Your task to perform on an android device: turn on location history Image 0: 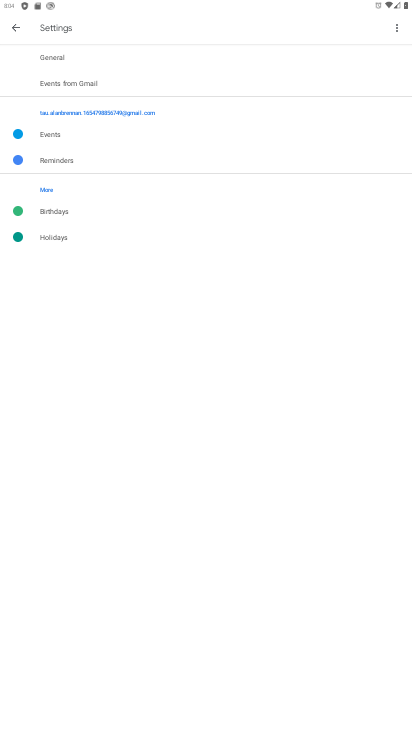
Step 0: drag from (397, 29) to (315, 298)
Your task to perform on an android device: turn on location history Image 1: 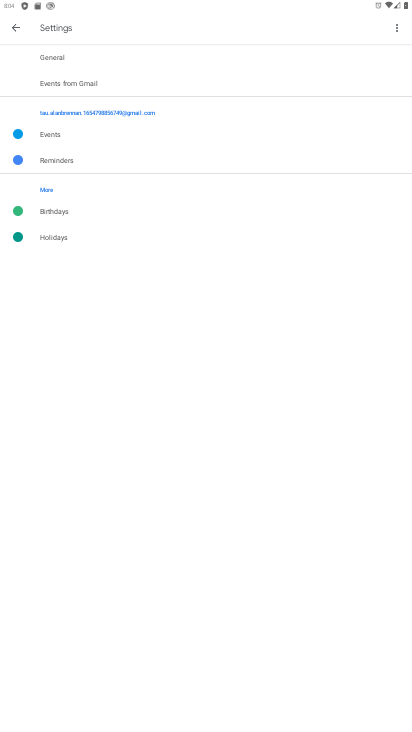
Step 1: click (14, 23)
Your task to perform on an android device: turn on location history Image 2: 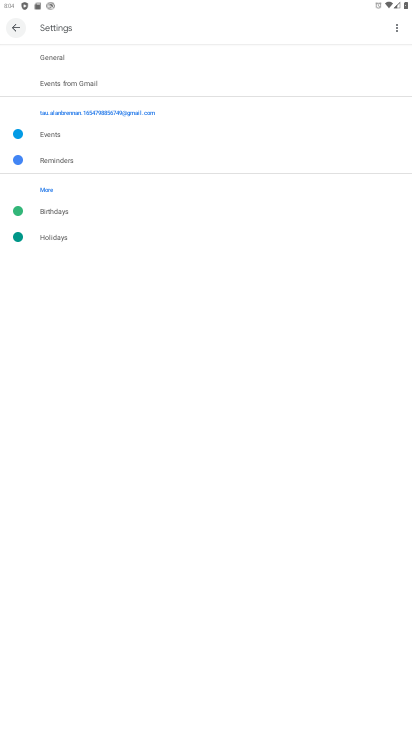
Step 2: click (15, 27)
Your task to perform on an android device: turn on location history Image 3: 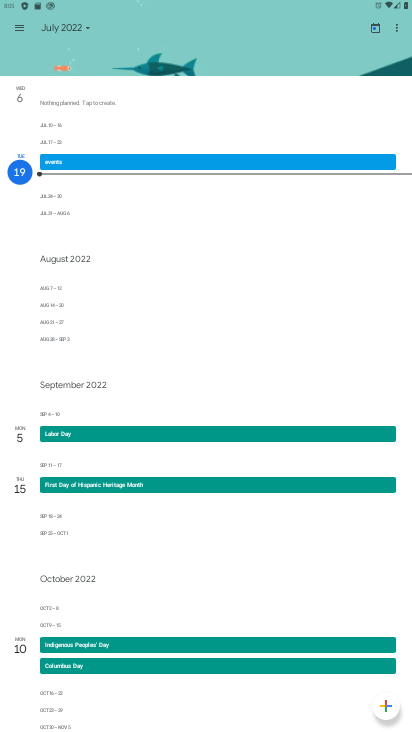
Step 3: press back button
Your task to perform on an android device: turn on location history Image 4: 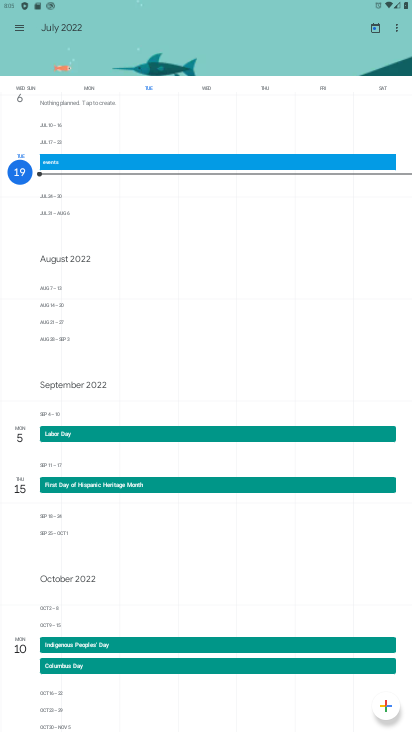
Step 4: press back button
Your task to perform on an android device: turn on location history Image 5: 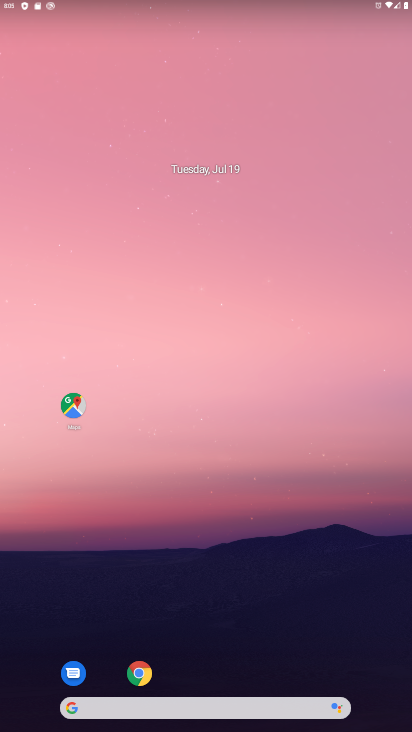
Step 5: drag from (279, 652) to (227, 307)
Your task to perform on an android device: turn on location history Image 6: 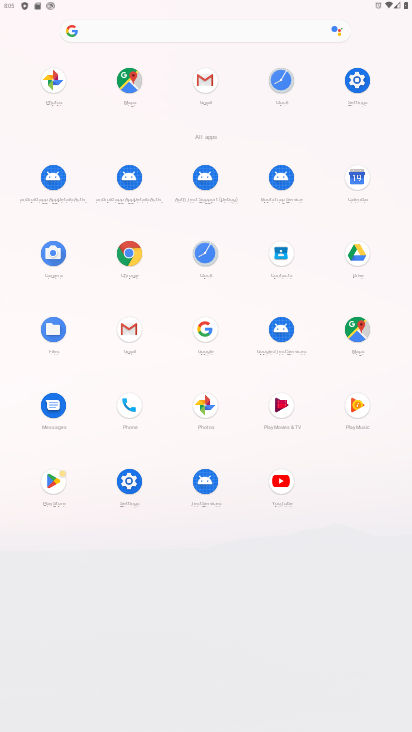
Step 6: click (353, 82)
Your task to perform on an android device: turn on location history Image 7: 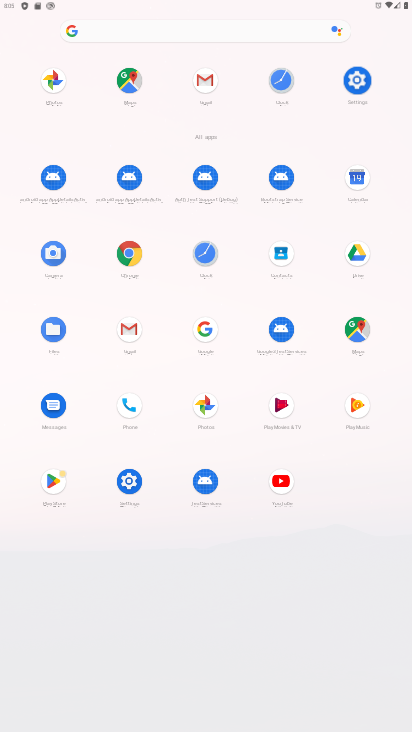
Step 7: click (353, 82)
Your task to perform on an android device: turn on location history Image 8: 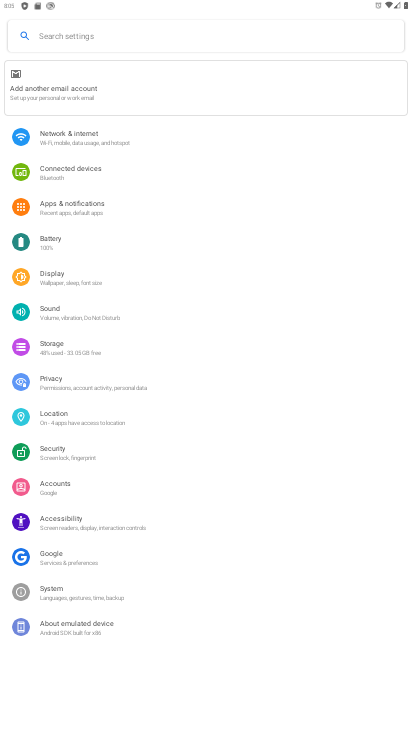
Step 8: click (53, 413)
Your task to perform on an android device: turn on location history Image 9: 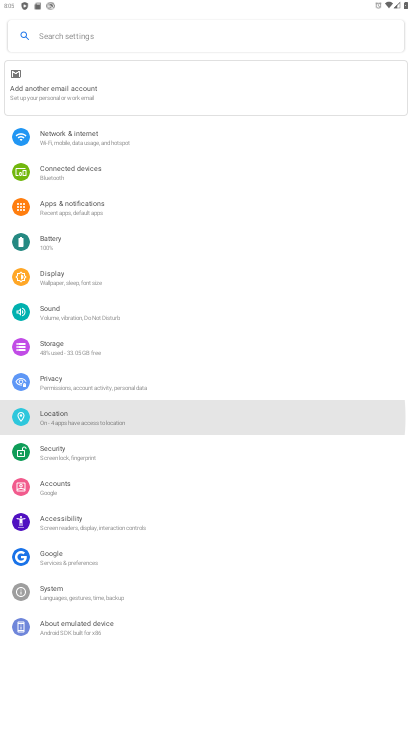
Step 9: click (53, 415)
Your task to perform on an android device: turn on location history Image 10: 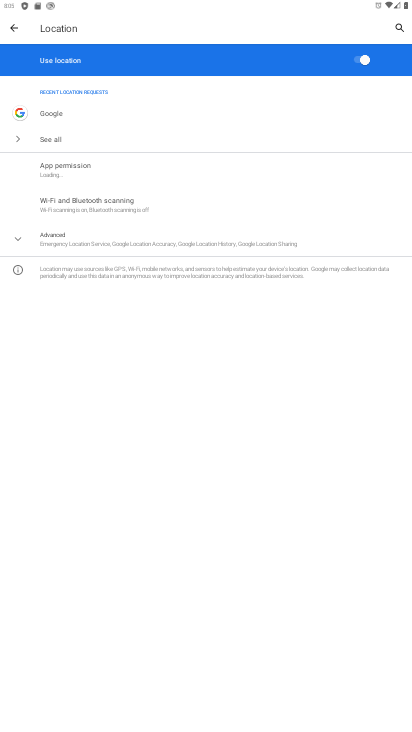
Step 10: click (59, 234)
Your task to perform on an android device: turn on location history Image 11: 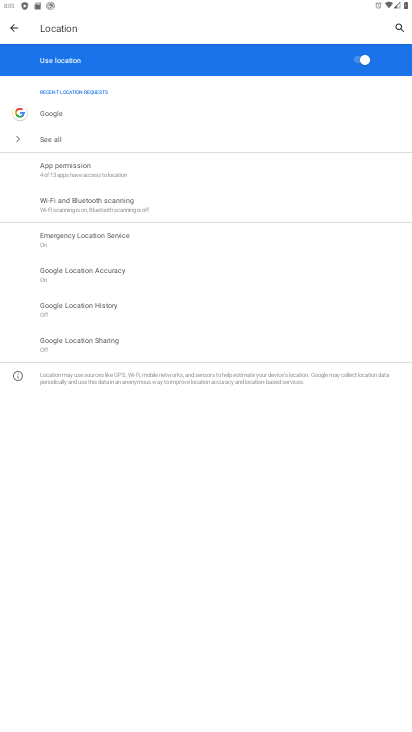
Step 11: click (87, 303)
Your task to perform on an android device: turn on location history Image 12: 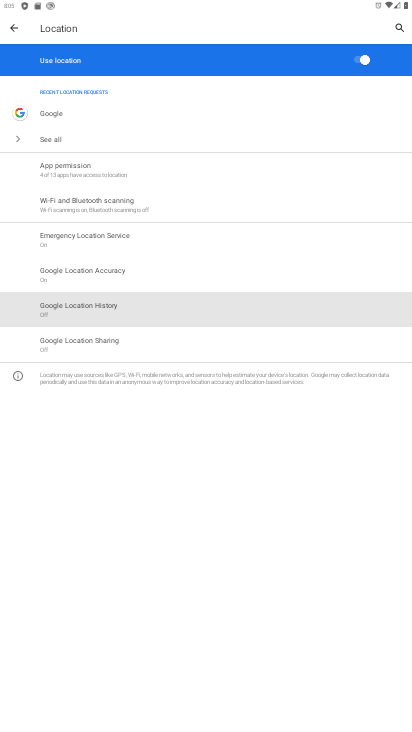
Step 12: click (86, 302)
Your task to perform on an android device: turn on location history Image 13: 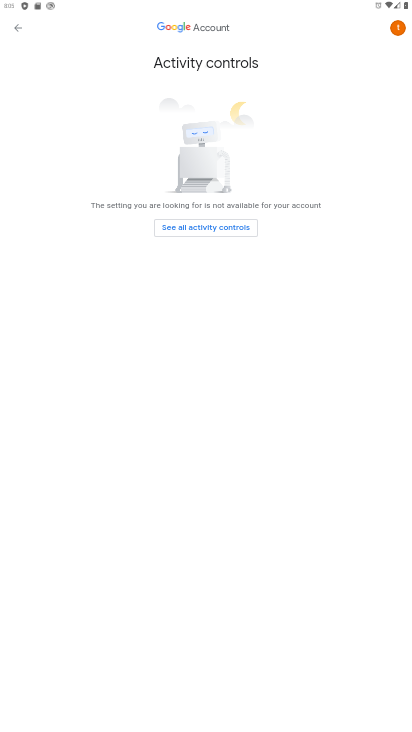
Step 13: click (211, 223)
Your task to perform on an android device: turn on location history Image 14: 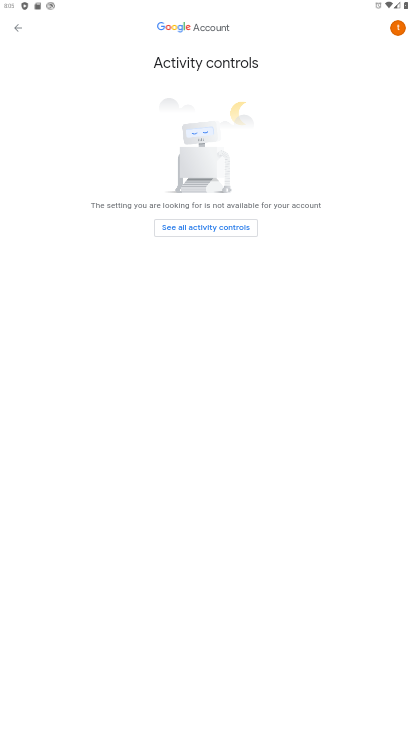
Step 14: click (211, 223)
Your task to perform on an android device: turn on location history Image 15: 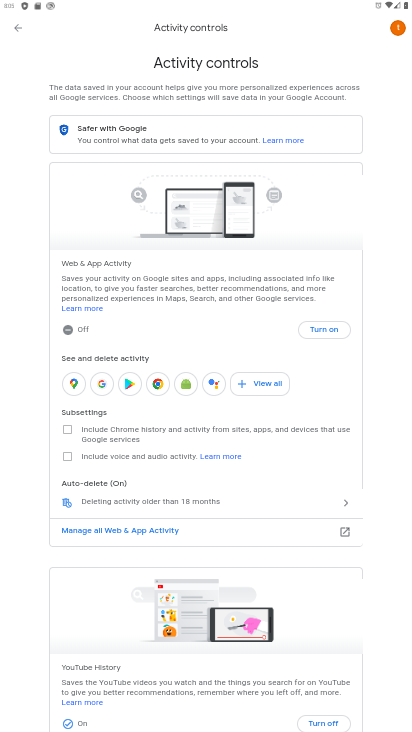
Step 15: click (333, 328)
Your task to perform on an android device: turn on location history Image 16: 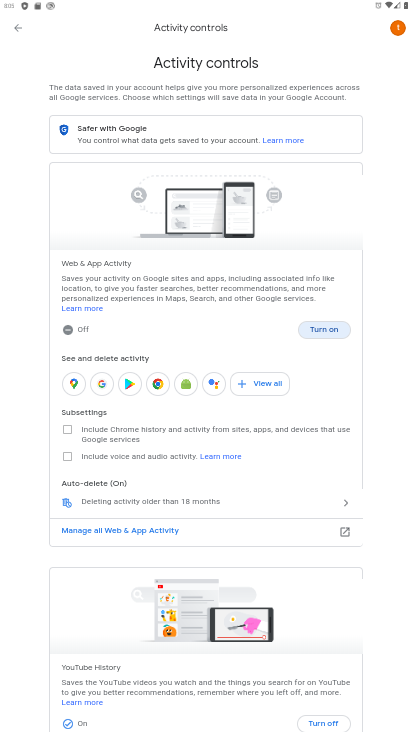
Step 16: click (333, 328)
Your task to perform on an android device: turn on location history Image 17: 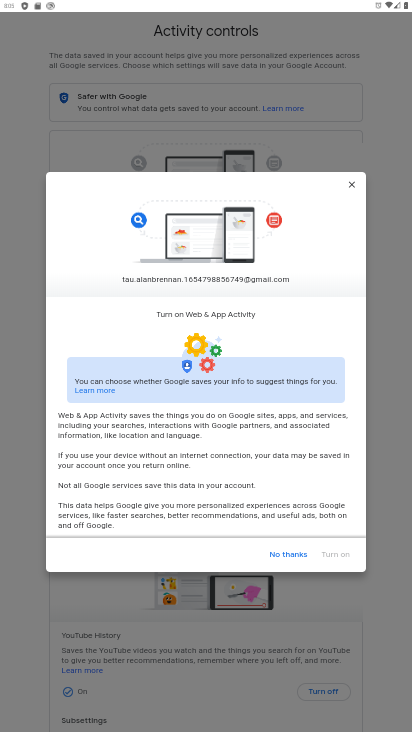
Step 17: click (339, 554)
Your task to perform on an android device: turn on location history Image 18: 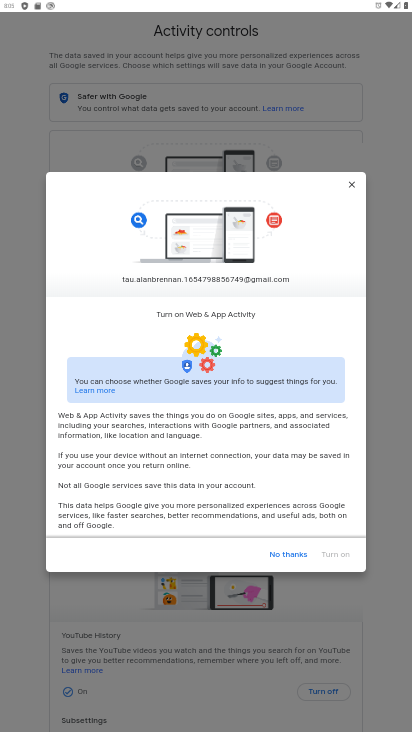
Step 18: click (339, 554)
Your task to perform on an android device: turn on location history Image 19: 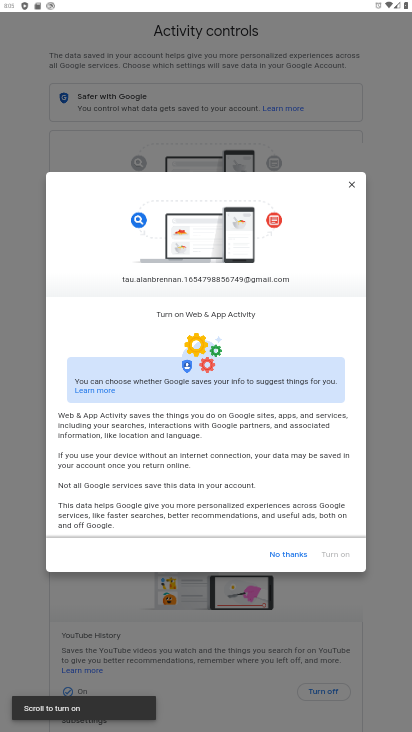
Step 19: click (326, 546)
Your task to perform on an android device: turn on location history Image 20: 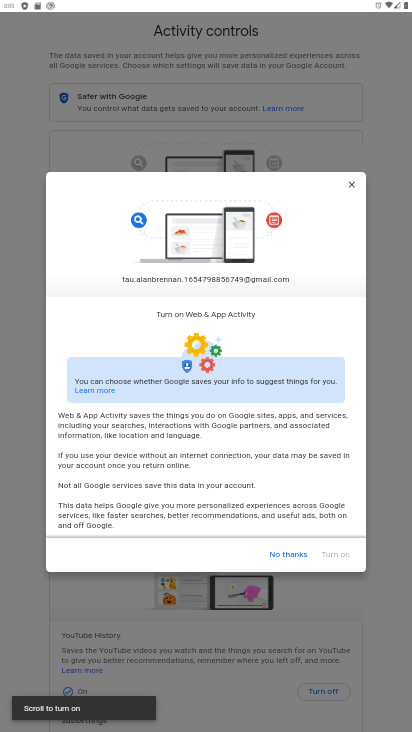
Step 20: click (332, 549)
Your task to perform on an android device: turn on location history Image 21: 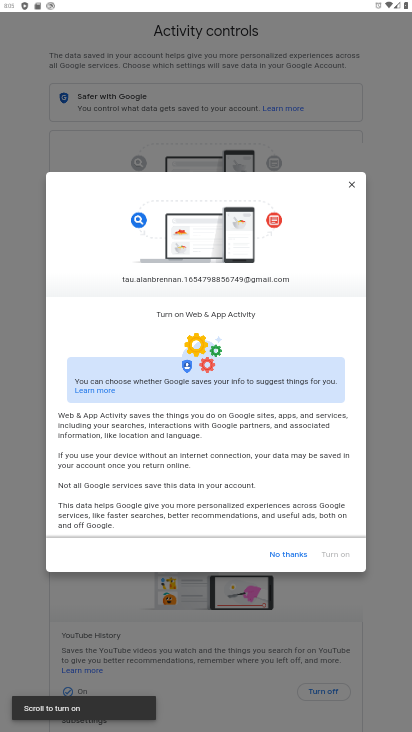
Step 21: click (334, 558)
Your task to perform on an android device: turn on location history Image 22: 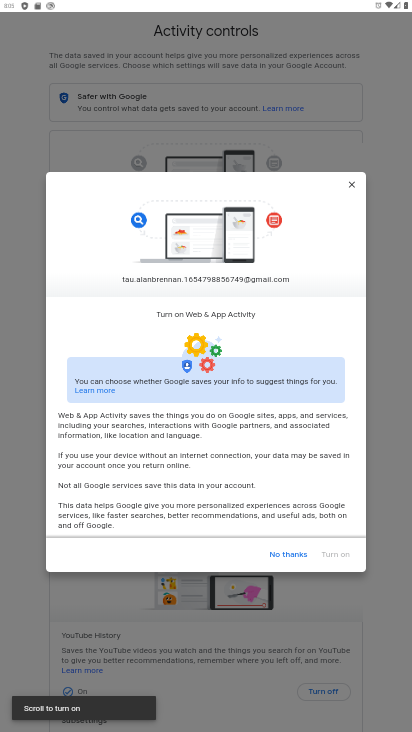
Step 22: click (334, 557)
Your task to perform on an android device: turn on location history Image 23: 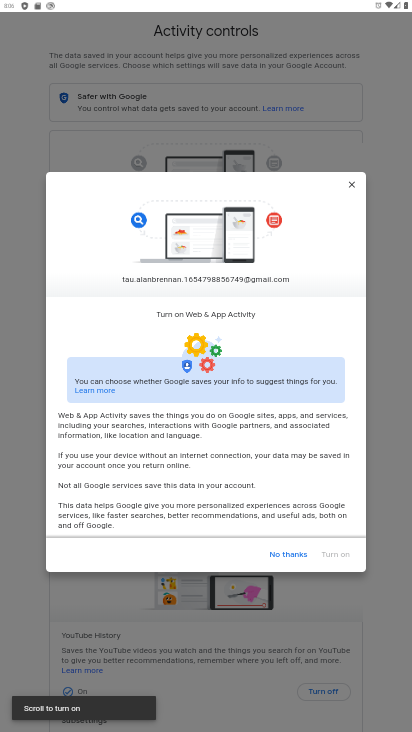
Step 23: press back button
Your task to perform on an android device: turn on location history Image 24: 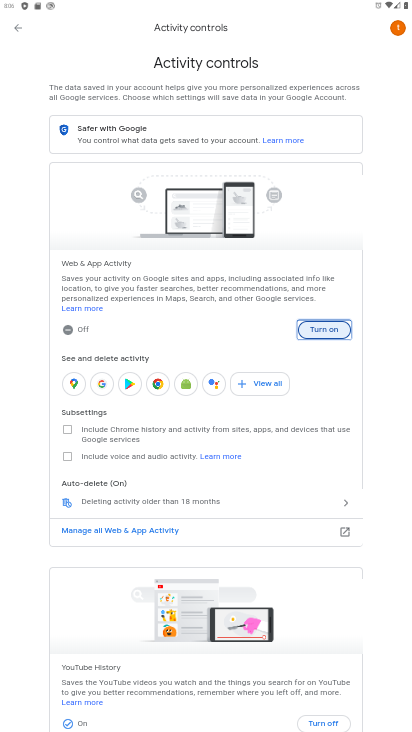
Step 24: press home button
Your task to perform on an android device: turn on location history Image 25: 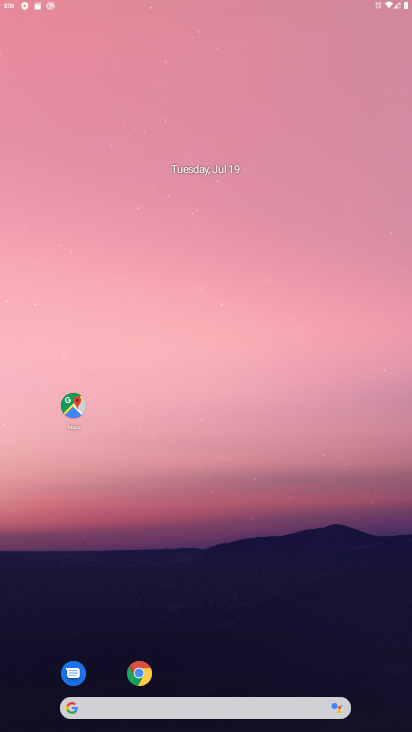
Step 25: press back button
Your task to perform on an android device: turn on location history Image 26: 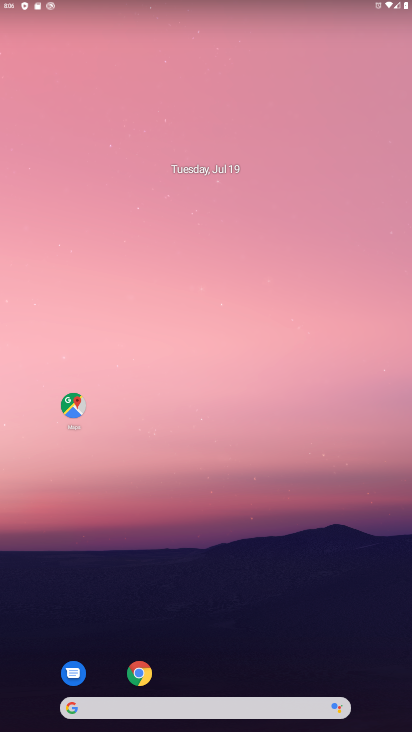
Step 26: drag from (236, 698) to (141, 342)
Your task to perform on an android device: turn on location history Image 27: 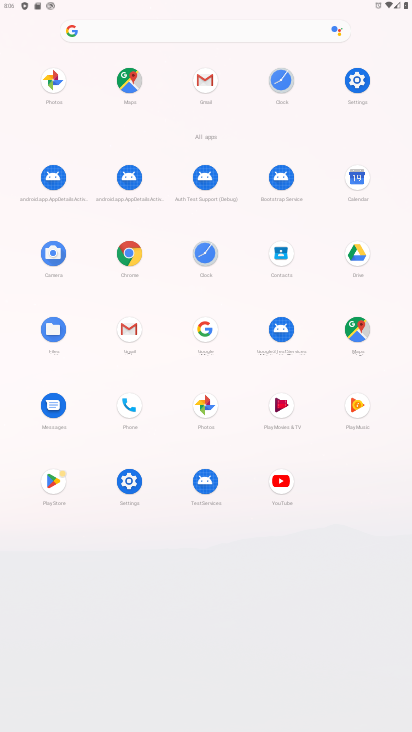
Step 27: click (368, 79)
Your task to perform on an android device: turn on location history Image 28: 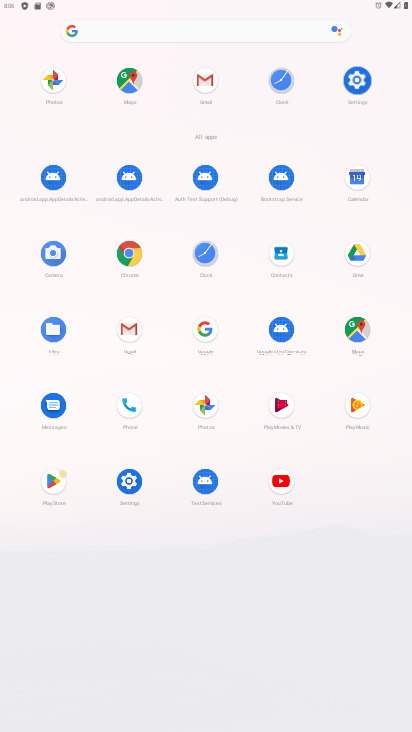
Step 28: click (368, 79)
Your task to perform on an android device: turn on location history Image 29: 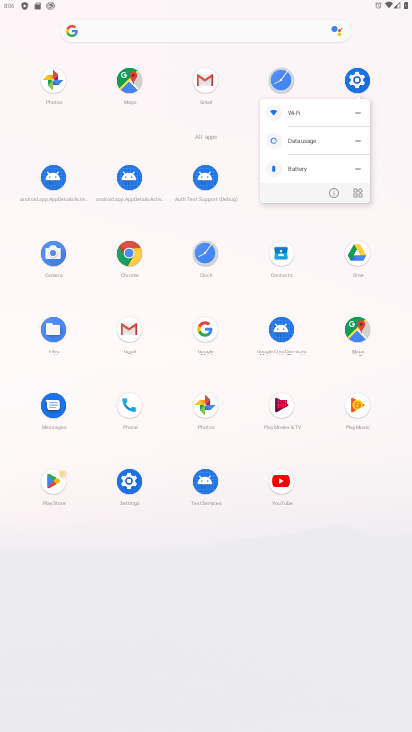
Step 29: click (365, 79)
Your task to perform on an android device: turn on location history Image 30: 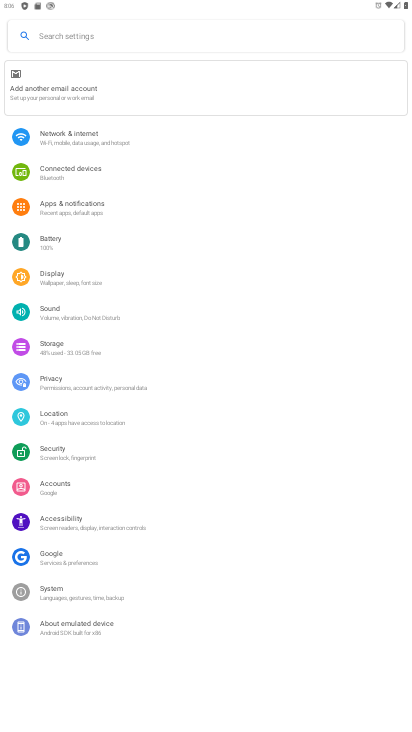
Step 30: click (60, 415)
Your task to perform on an android device: turn on location history Image 31: 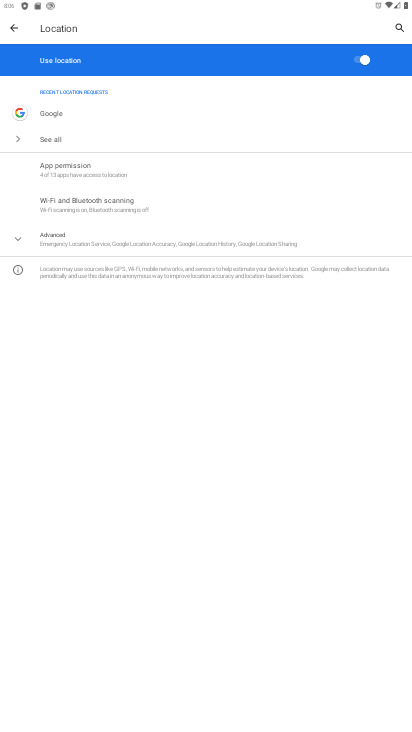
Step 31: click (57, 224)
Your task to perform on an android device: turn on location history Image 32: 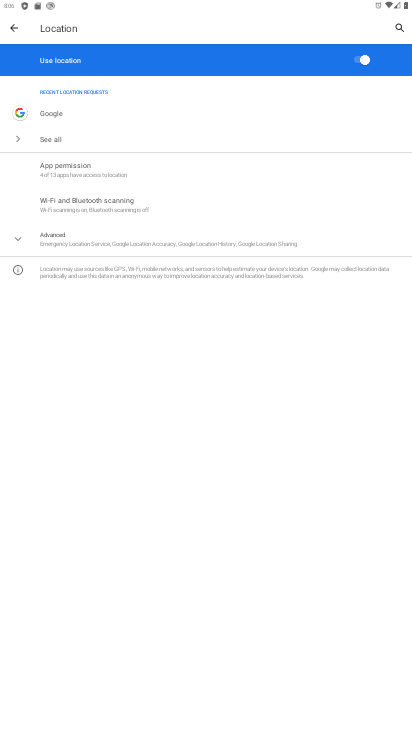
Step 32: click (60, 229)
Your task to perform on an android device: turn on location history Image 33: 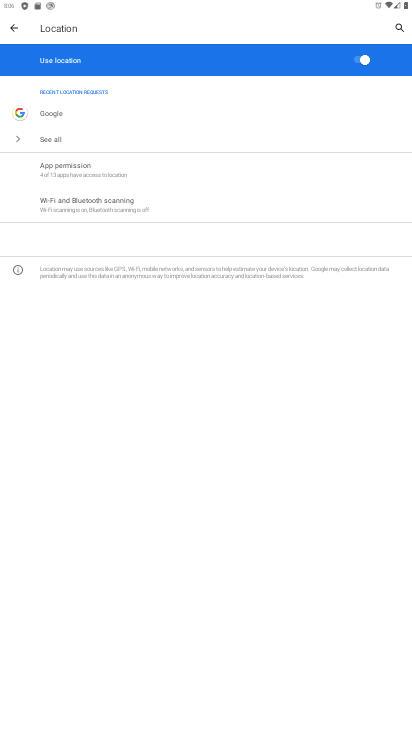
Step 33: click (61, 229)
Your task to perform on an android device: turn on location history Image 34: 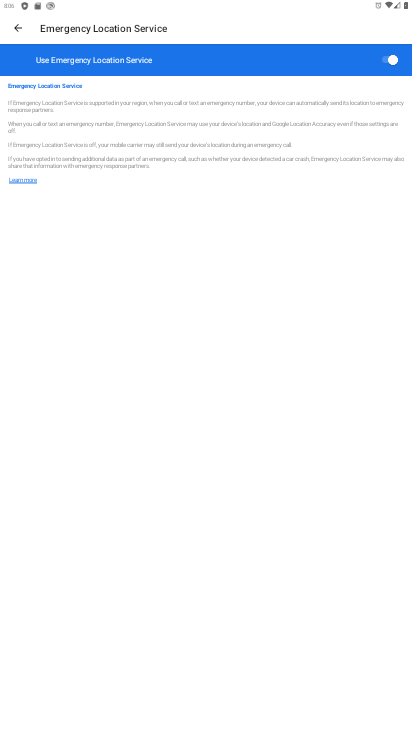
Step 34: click (17, 23)
Your task to perform on an android device: turn on location history Image 35: 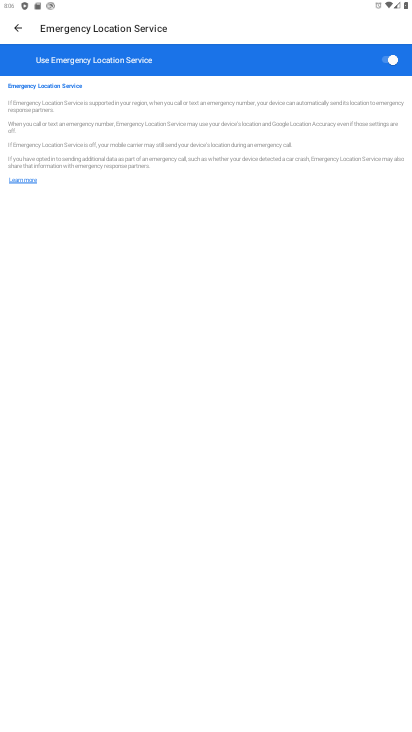
Step 35: click (18, 22)
Your task to perform on an android device: turn on location history Image 36: 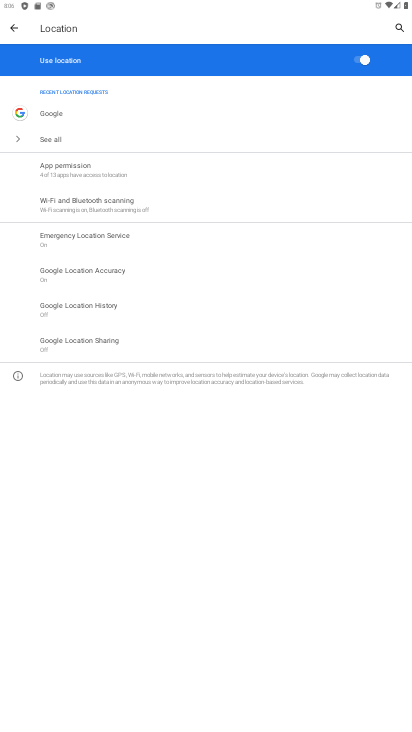
Step 36: click (103, 264)
Your task to perform on an android device: turn on location history Image 37: 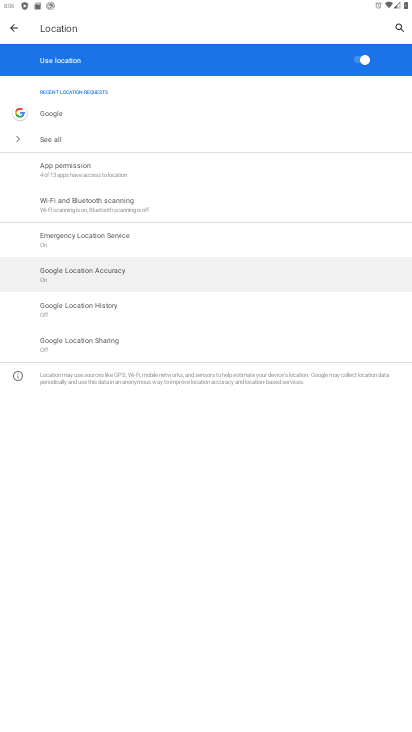
Step 37: click (104, 265)
Your task to perform on an android device: turn on location history Image 38: 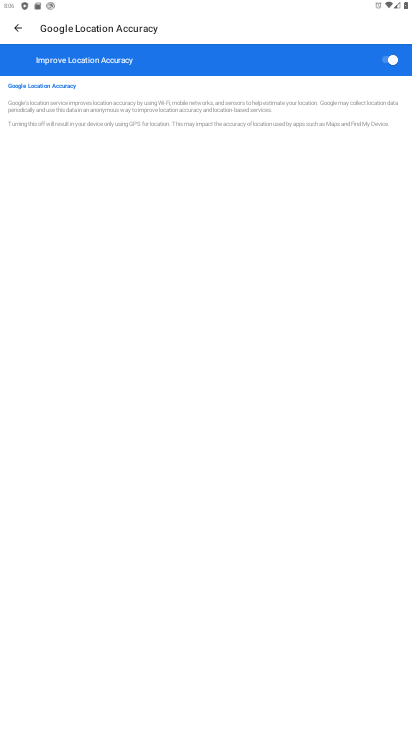
Step 38: click (14, 24)
Your task to perform on an android device: turn on location history Image 39: 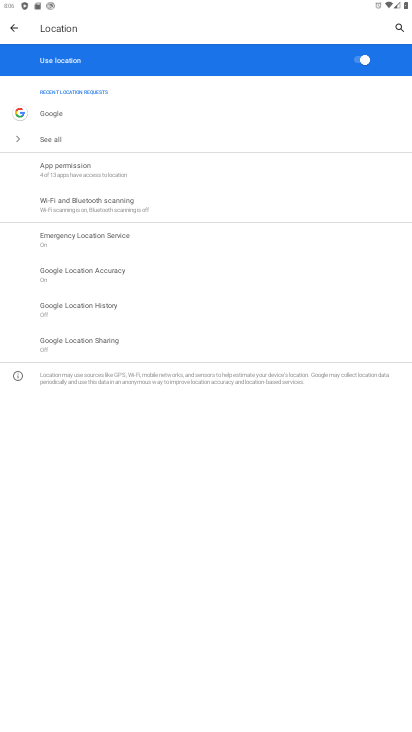
Step 39: click (86, 297)
Your task to perform on an android device: turn on location history Image 40: 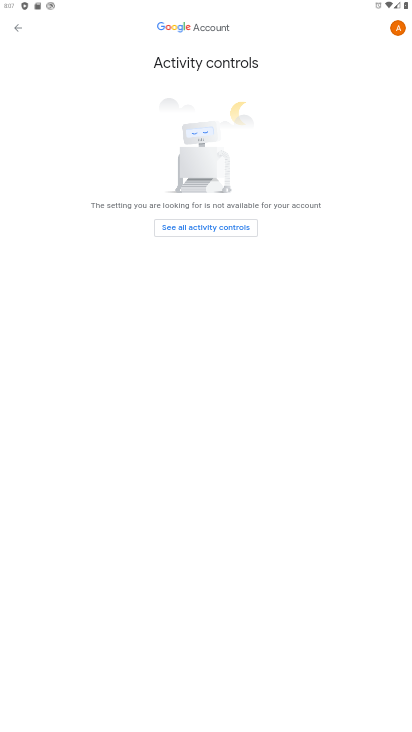
Step 40: click (209, 219)
Your task to perform on an android device: turn on location history Image 41: 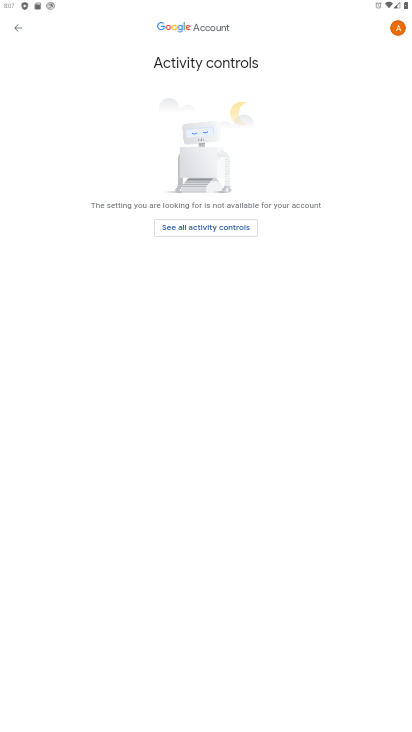
Step 41: click (208, 220)
Your task to perform on an android device: turn on location history Image 42: 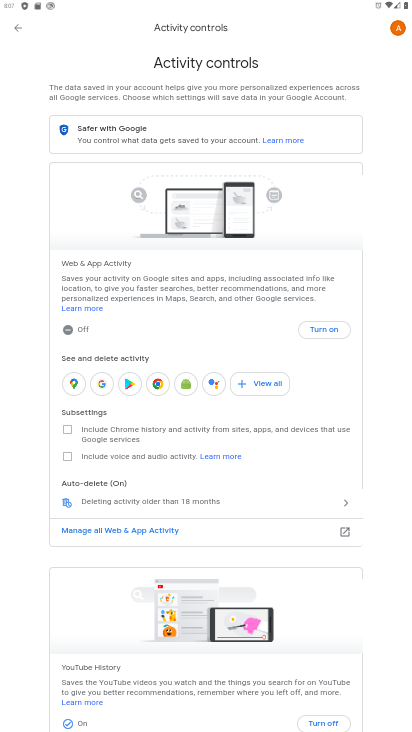
Step 42: task complete